Your task to perform on an android device: Open Google Chrome Image 0: 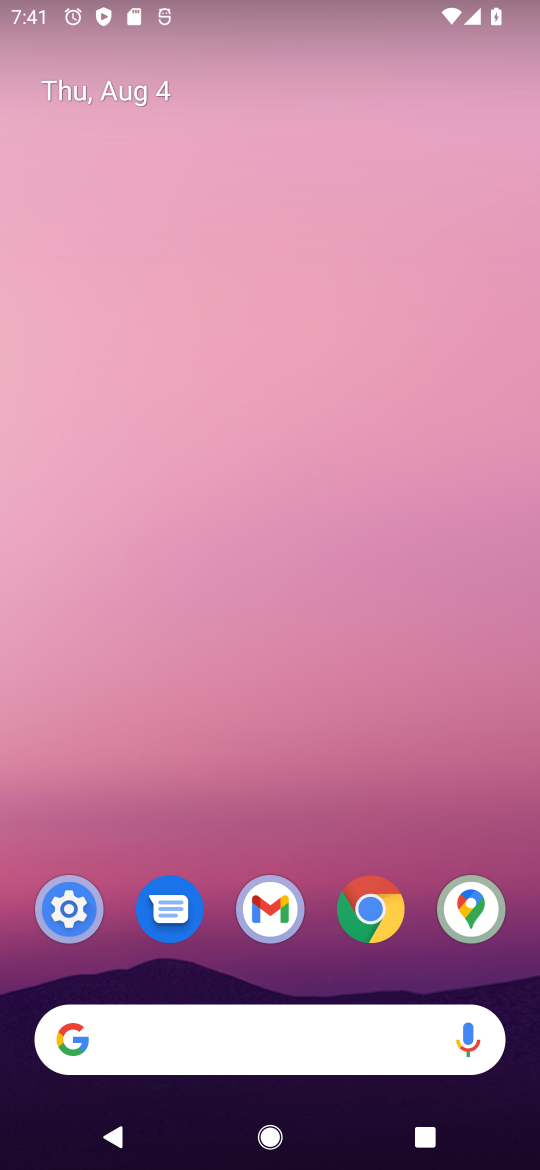
Step 0: drag from (84, 722) to (290, 99)
Your task to perform on an android device: Open Google Chrome Image 1: 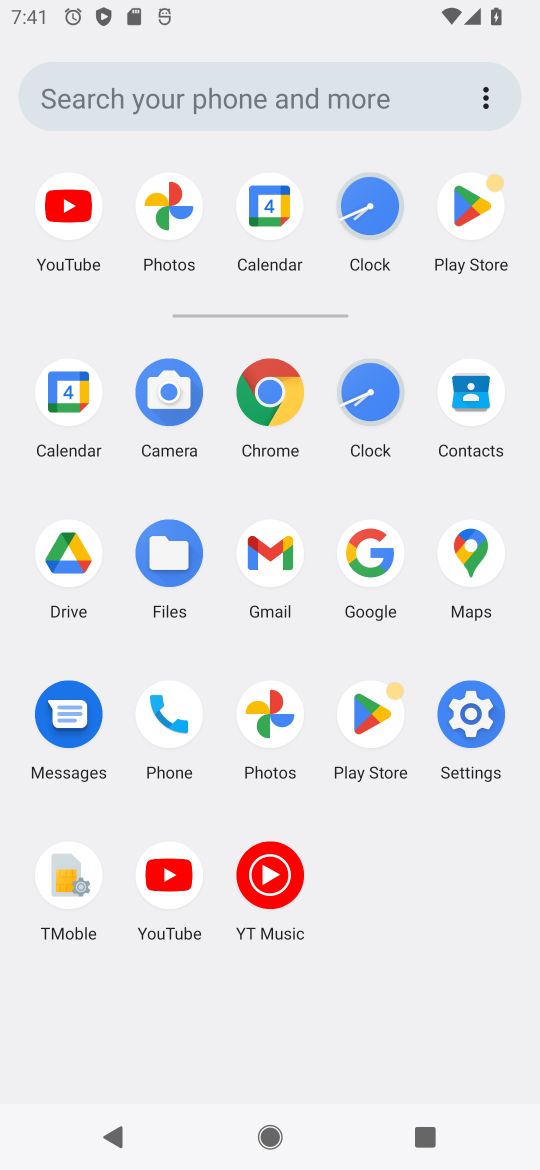
Step 1: click (288, 415)
Your task to perform on an android device: Open Google Chrome Image 2: 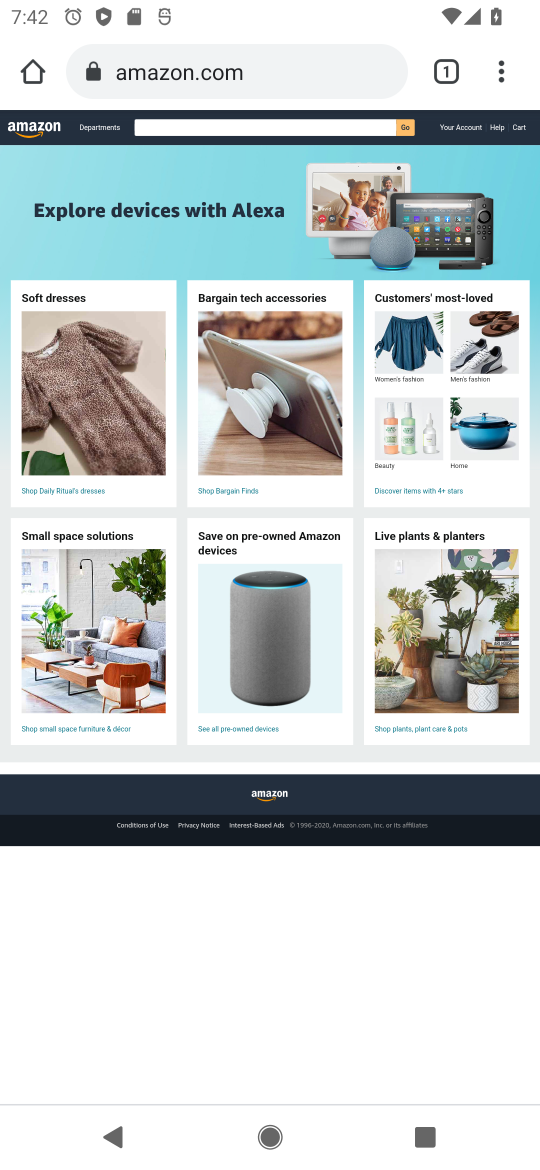
Step 2: task complete